Your task to perform on an android device: turn on data saver in the chrome app Image 0: 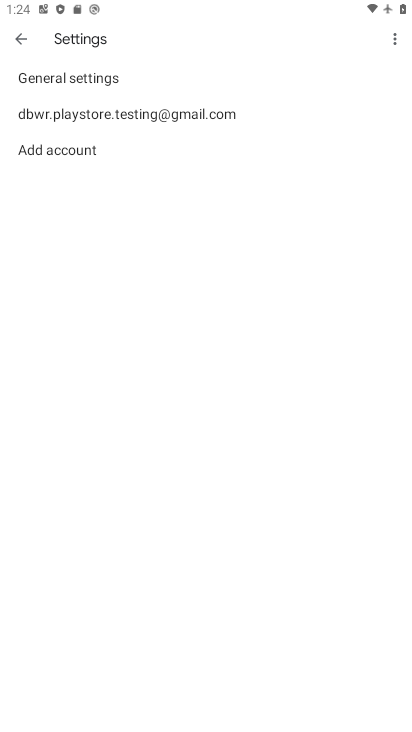
Step 0: press home button
Your task to perform on an android device: turn on data saver in the chrome app Image 1: 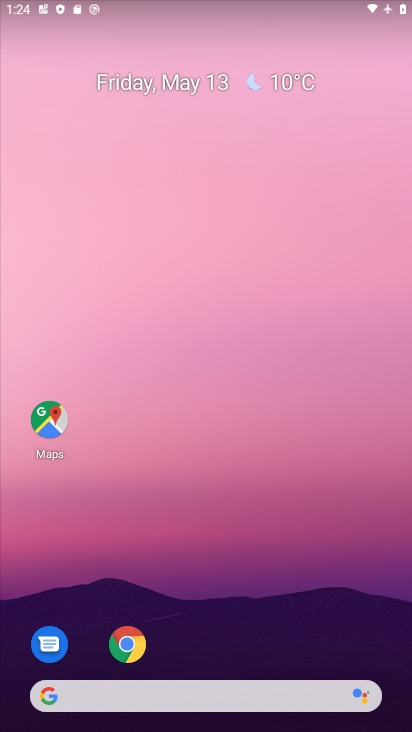
Step 1: click (128, 643)
Your task to perform on an android device: turn on data saver in the chrome app Image 2: 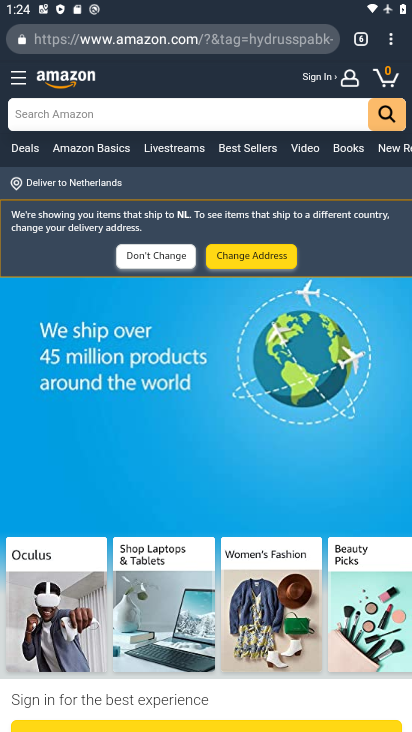
Step 2: click (393, 41)
Your task to perform on an android device: turn on data saver in the chrome app Image 3: 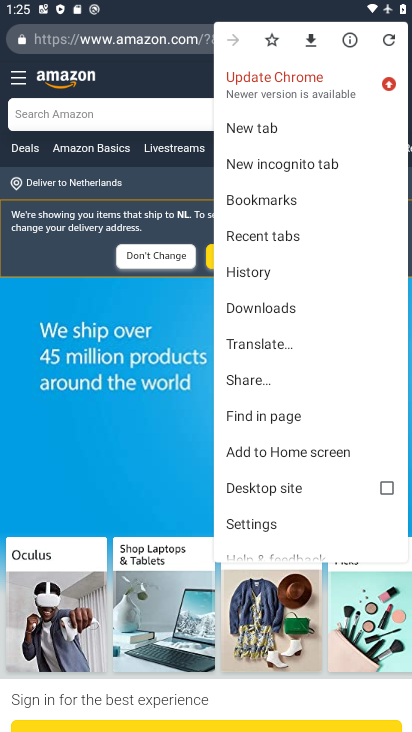
Step 3: click (252, 527)
Your task to perform on an android device: turn on data saver in the chrome app Image 4: 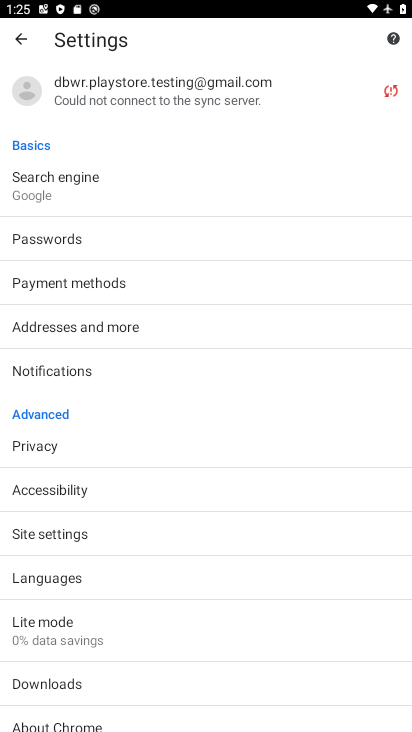
Step 4: click (56, 617)
Your task to perform on an android device: turn on data saver in the chrome app Image 5: 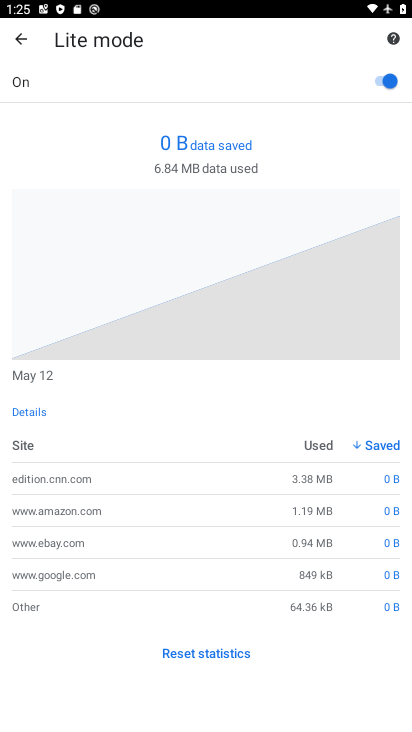
Step 5: task complete